Your task to perform on an android device: Go to wifi settings Image 0: 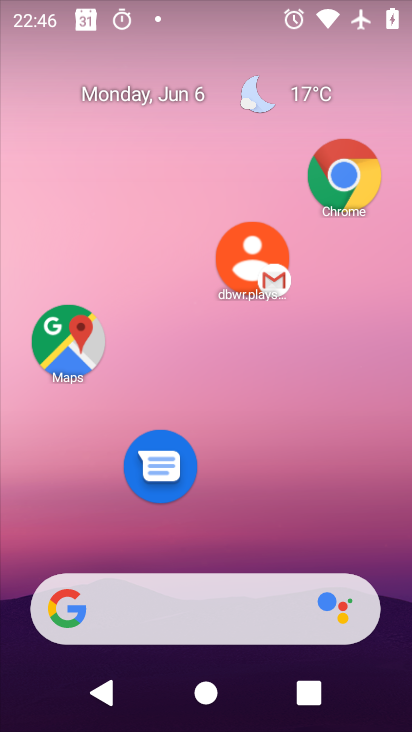
Step 0: drag from (213, 517) to (196, 6)
Your task to perform on an android device: Go to wifi settings Image 1: 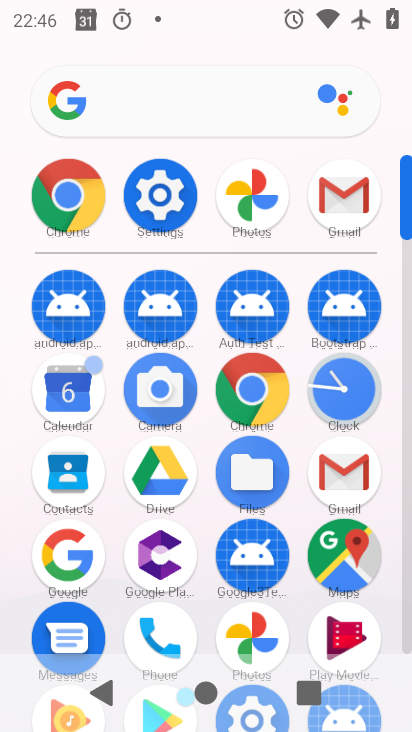
Step 1: click (153, 182)
Your task to perform on an android device: Go to wifi settings Image 2: 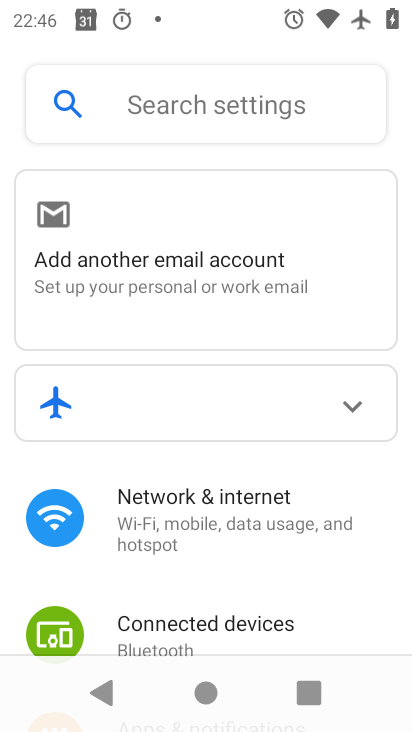
Step 2: click (196, 508)
Your task to perform on an android device: Go to wifi settings Image 3: 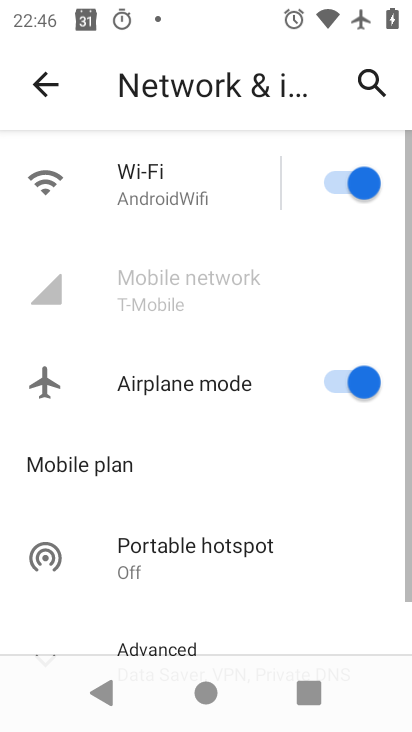
Step 3: click (183, 188)
Your task to perform on an android device: Go to wifi settings Image 4: 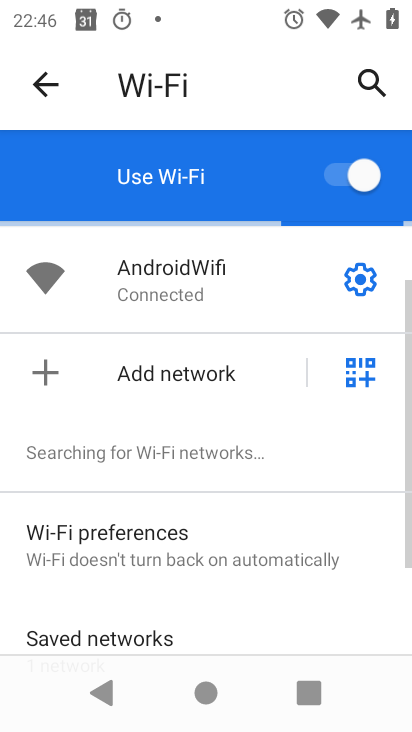
Step 4: click (350, 286)
Your task to perform on an android device: Go to wifi settings Image 5: 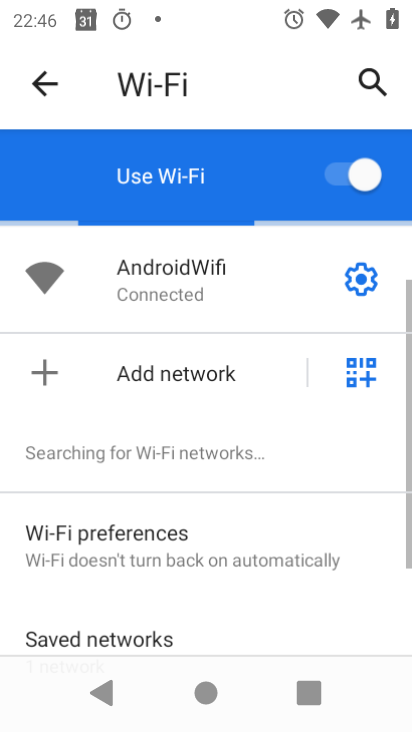
Step 5: task complete